Your task to perform on an android device: Open Youtube and go to the subscriptions tab Image 0: 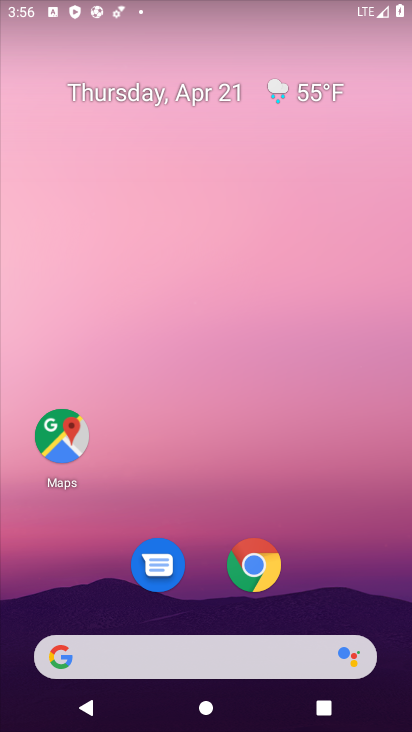
Step 0: drag from (315, 529) to (313, 90)
Your task to perform on an android device: Open Youtube and go to the subscriptions tab Image 1: 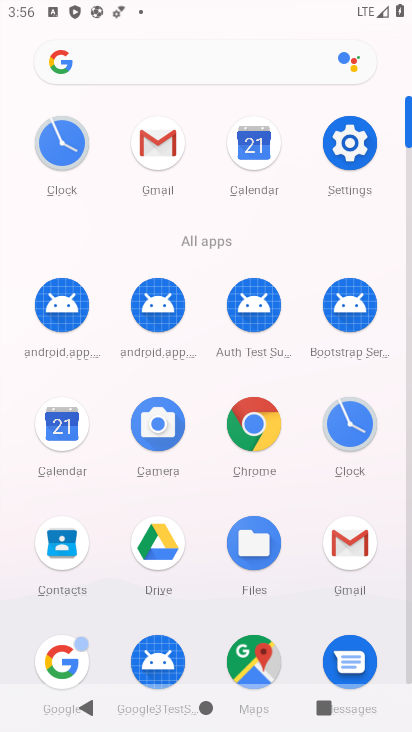
Step 1: drag from (296, 525) to (300, 202)
Your task to perform on an android device: Open Youtube and go to the subscriptions tab Image 2: 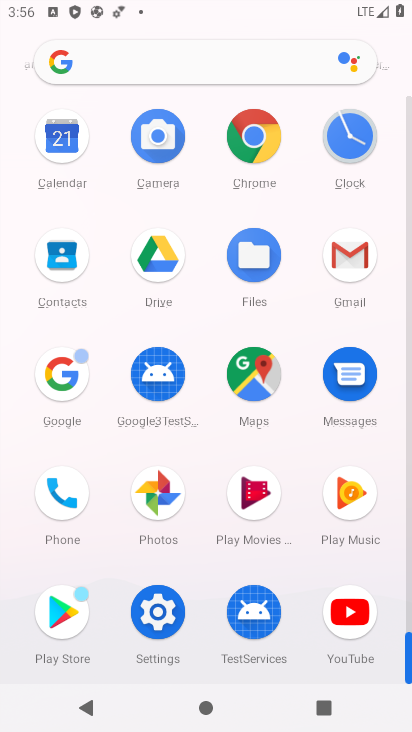
Step 2: click (348, 606)
Your task to perform on an android device: Open Youtube and go to the subscriptions tab Image 3: 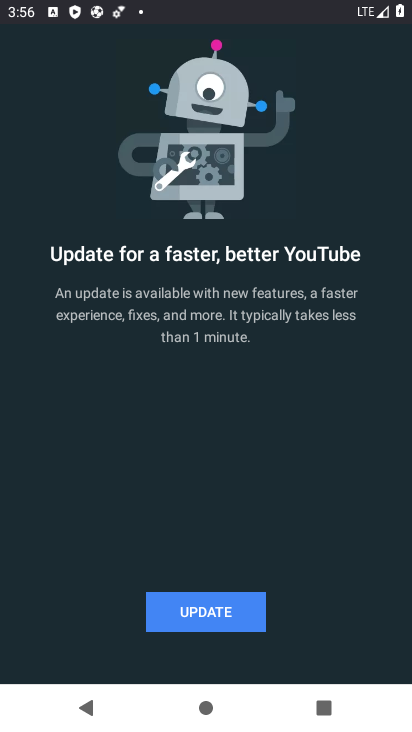
Step 3: click (238, 618)
Your task to perform on an android device: Open Youtube and go to the subscriptions tab Image 4: 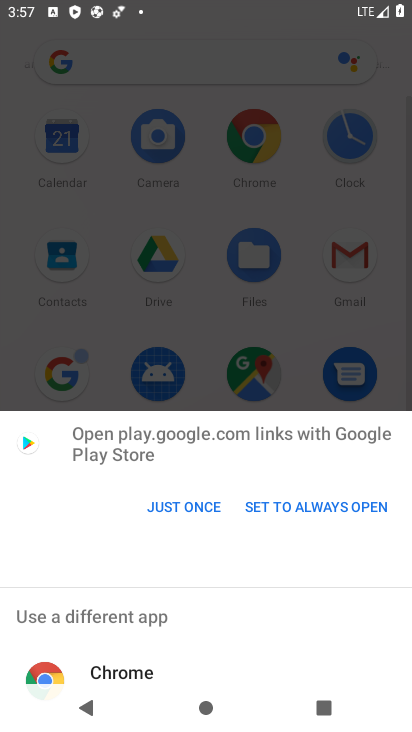
Step 4: click (172, 505)
Your task to perform on an android device: Open Youtube and go to the subscriptions tab Image 5: 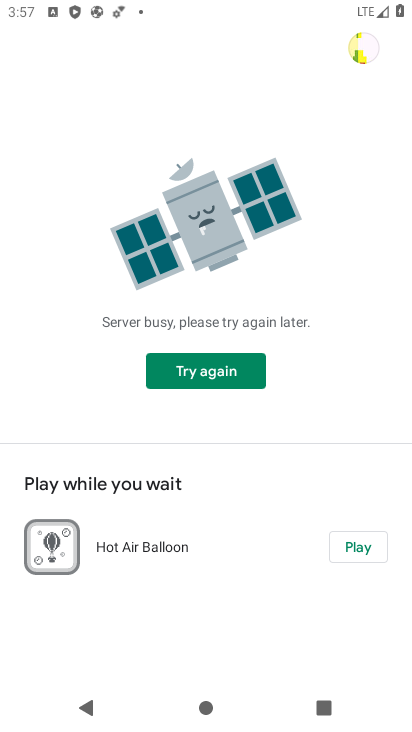
Step 5: click (236, 372)
Your task to perform on an android device: Open Youtube and go to the subscriptions tab Image 6: 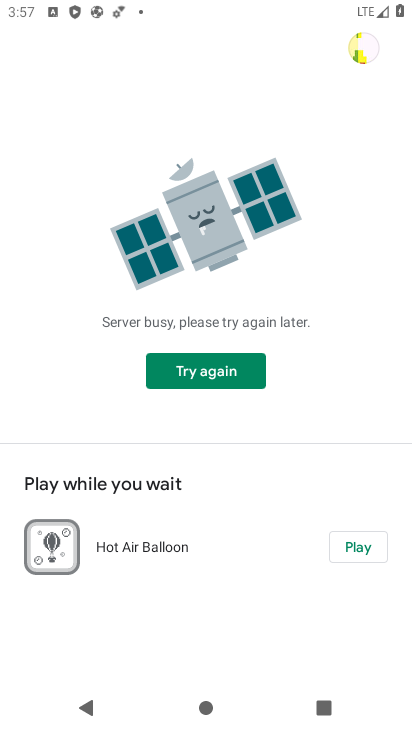
Step 6: click (236, 372)
Your task to perform on an android device: Open Youtube and go to the subscriptions tab Image 7: 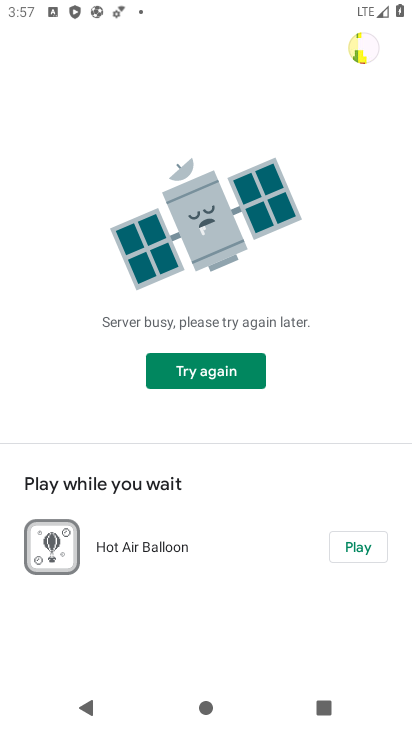
Step 7: click (236, 372)
Your task to perform on an android device: Open Youtube and go to the subscriptions tab Image 8: 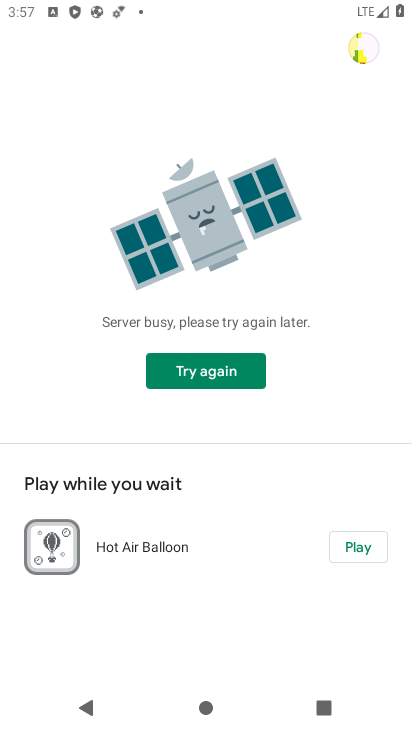
Step 8: task complete